Your task to perform on an android device: move a message to another label in the gmail app Image 0: 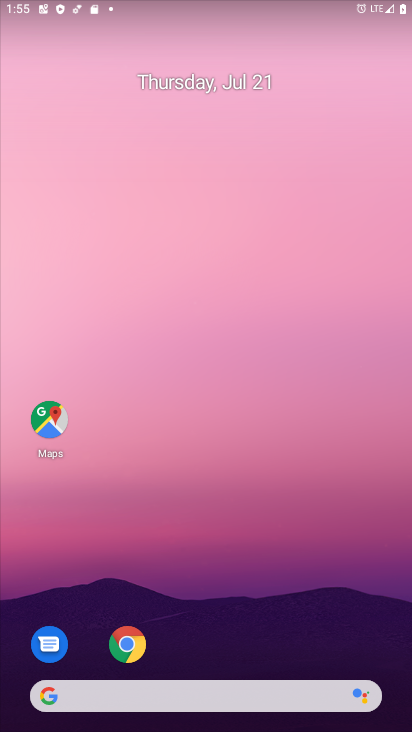
Step 0: drag from (163, 483) to (189, 277)
Your task to perform on an android device: move a message to another label in the gmail app Image 1: 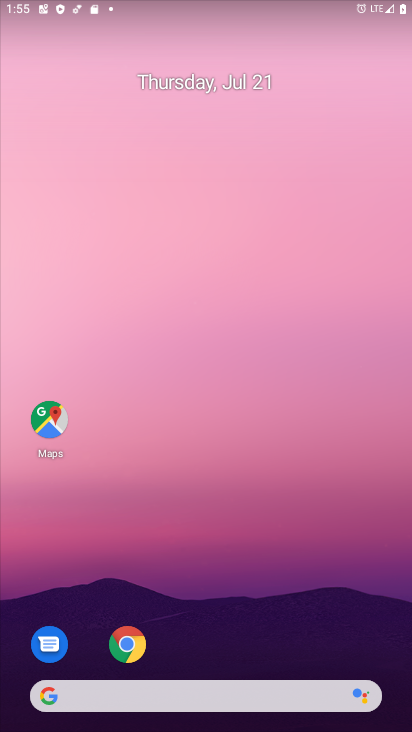
Step 1: drag from (222, 698) to (266, 105)
Your task to perform on an android device: move a message to another label in the gmail app Image 2: 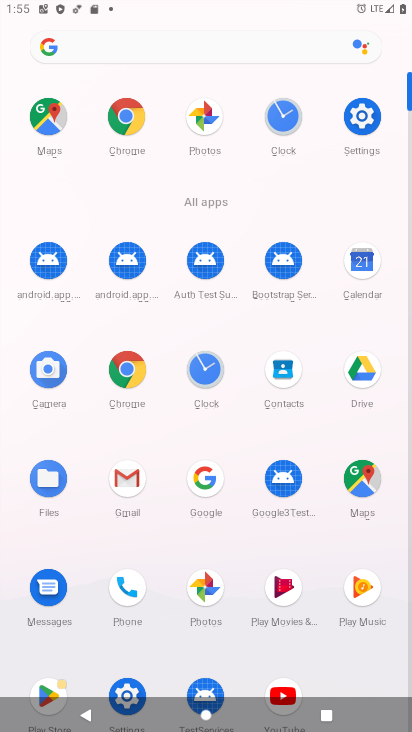
Step 2: click (130, 485)
Your task to perform on an android device: move a message to another label in the gmail app Image 3: 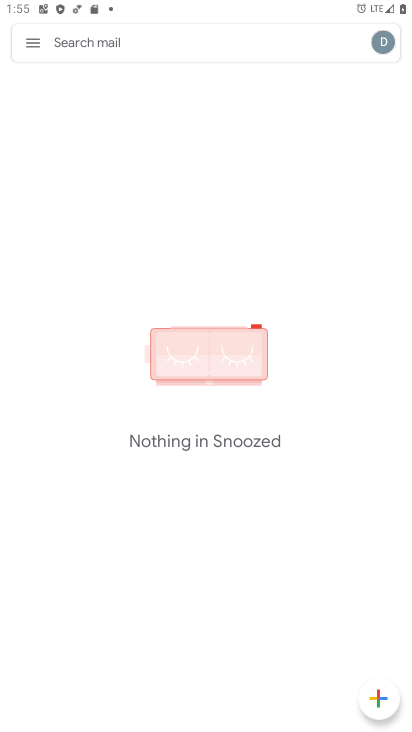
Step 3: click (38, 38)
Your task to perform on an android device: move a message to another label in the gmail app Image 4: 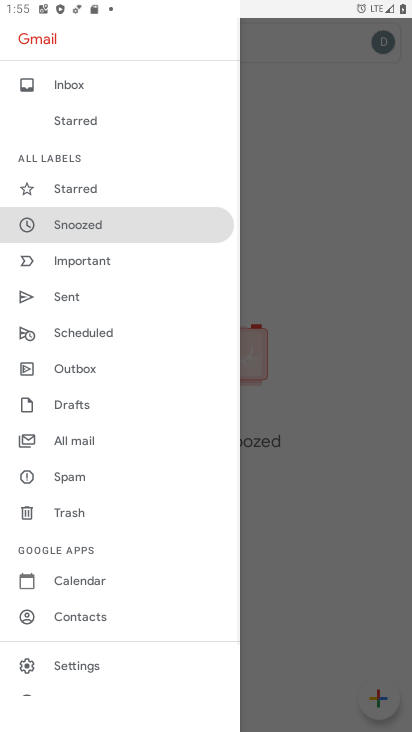
Step 4: click (102, 86)
Your task to perform on an android device: move a message to another label in the gmail app Image 5: 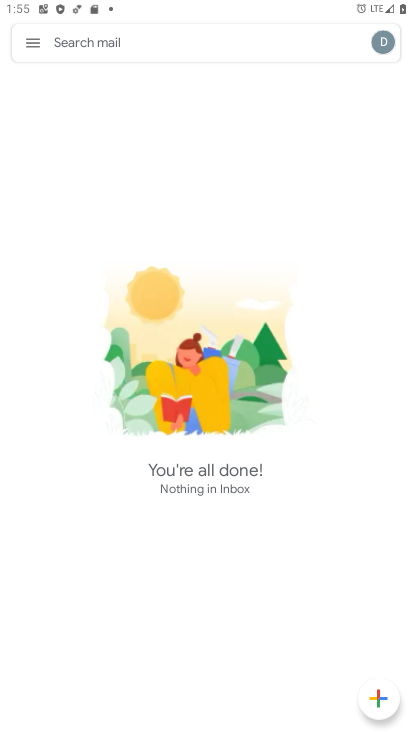
Step 5: task complete